Your task to perform on an android device: See recent photos Image 0: 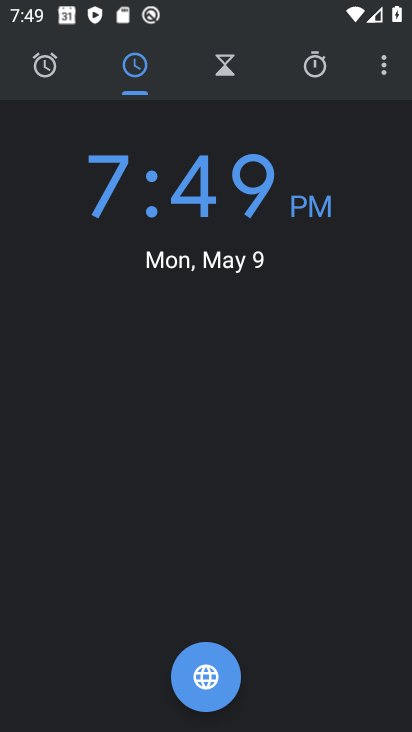
Step 0: press home button
Your task to perform on an android device: See recent photos Image 1: 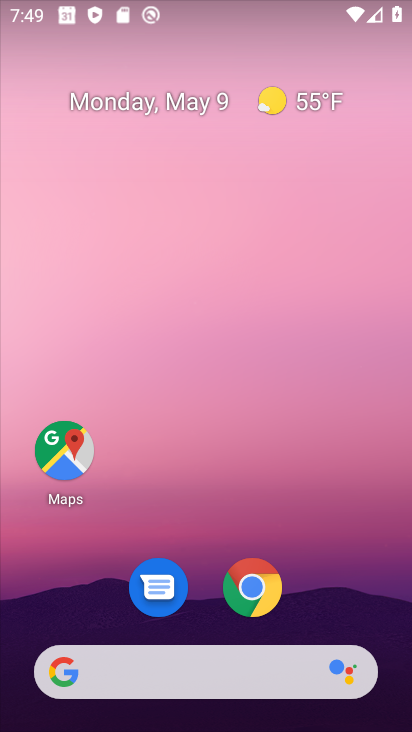
Step 1: drag from (217, 634) to (35, 237)
Your task to perform on an android device: See recent photos Image 2: 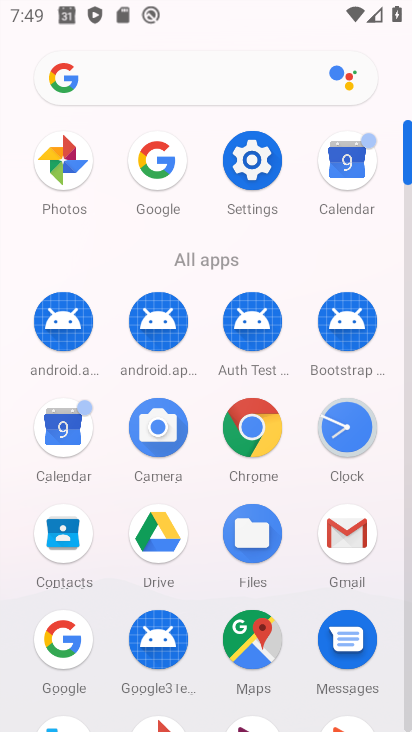
Step 2: click (73, 183)
Your task to perform on an android device: See recent photos Image 3: 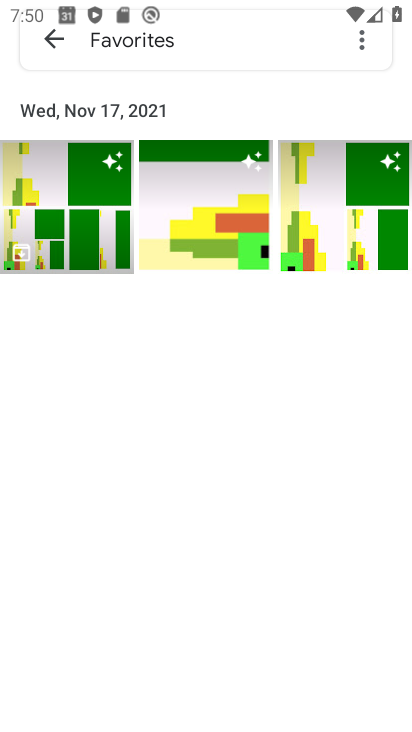
Step 3: drag from (260, 392) to (172, 729)
Your task to perform on an android device: See recent photos Image 4: 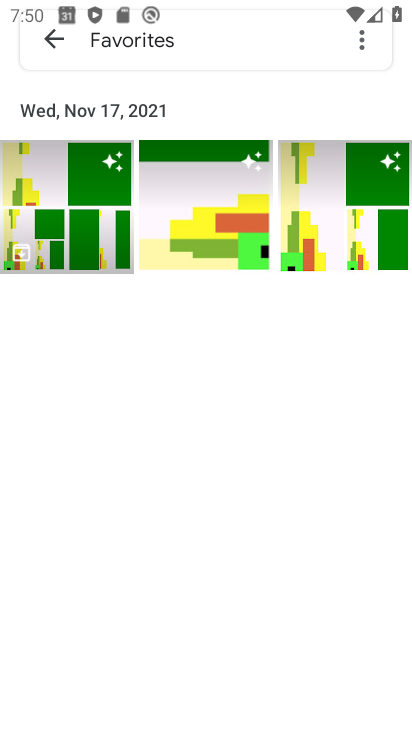
Step 4: click (48, 47)
Your task to perform on an android device: See recent photos Image 5: 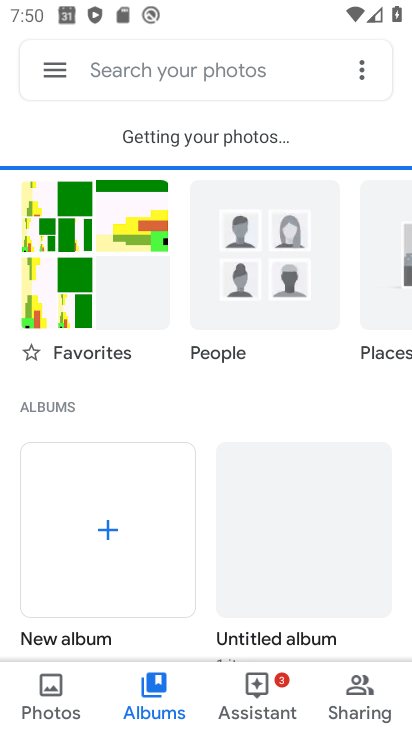
Step 5: click (51, 699)
Your task to perform on an android device: See recent photos Image 6: 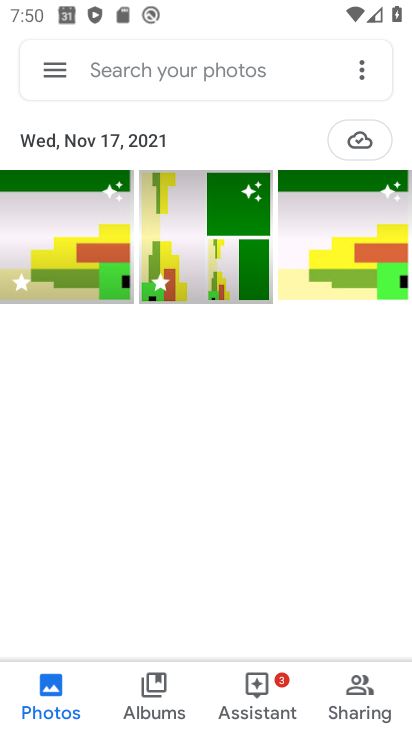
Step 6: task complete